Your task to perform on an android device: add a contact Image 0: 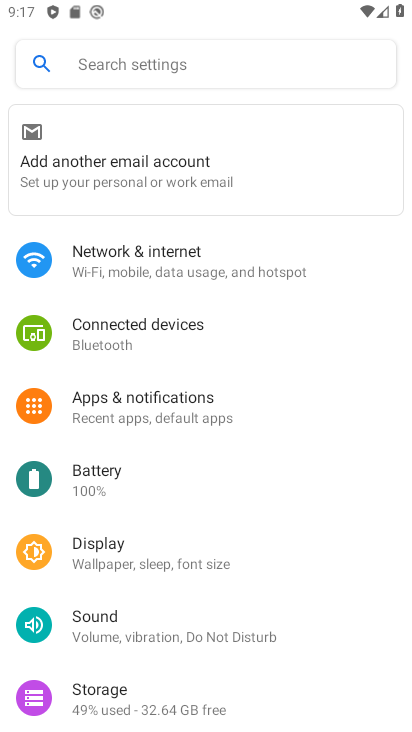
Step 0: press home button
Your task to perform on an android device: add a contact Image 1: 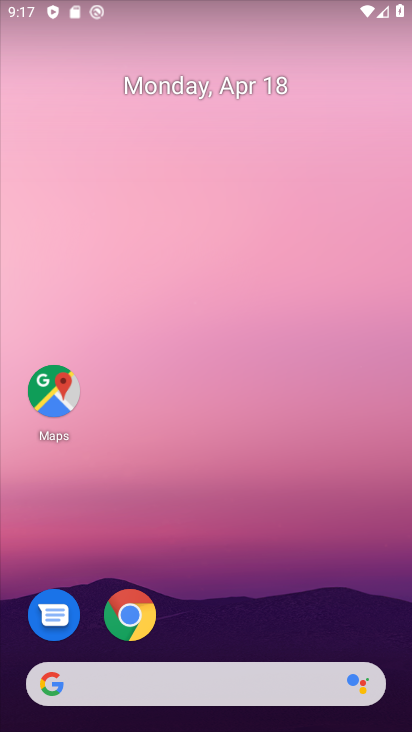
Step 1: drag from (215, 546) to (248, 355)
Your task to perform on an android device: add a contact Image 2: 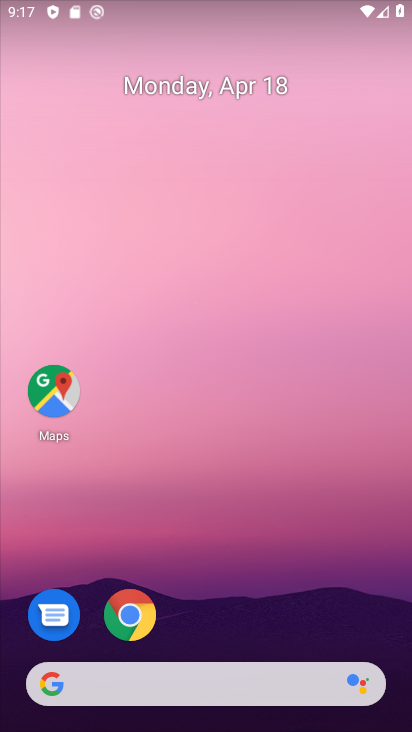
Step 2: drag from (229, 627) to (171, 217)
Your task to perform on an android device: add a contact Image 3: 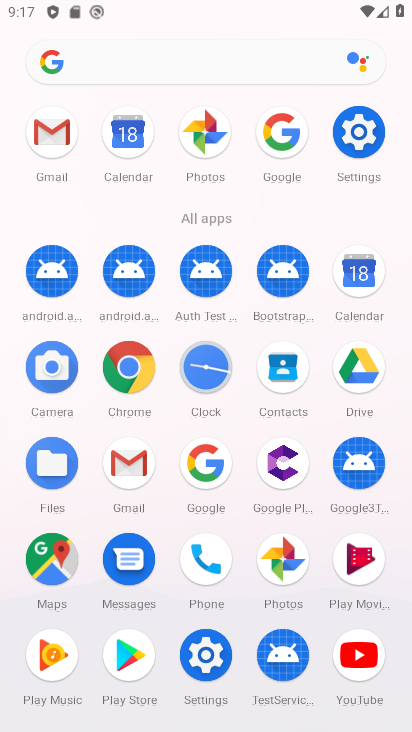
Step 3: click (277, 352)
Your task to perform on an android device: add a contact Image 4: 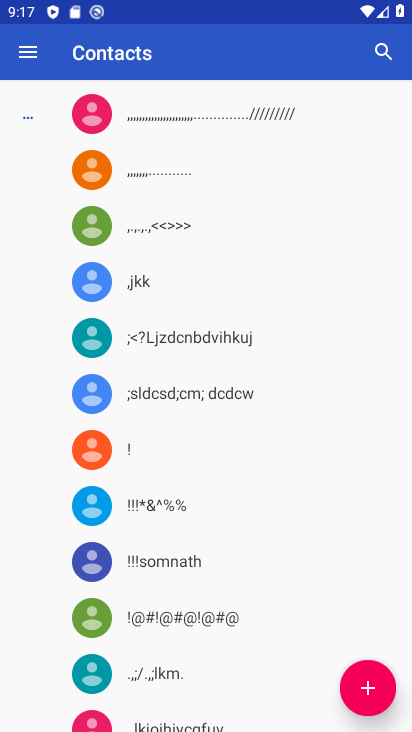
Step 4: click (366, 688)
Your task to perform on an android device: add a contact Image 5: 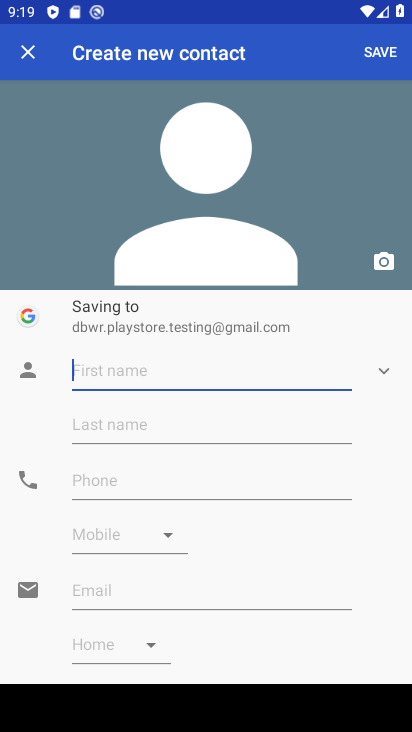
Step 5: type "prito"
Your task to perform on an android device: add a contact Image 6: 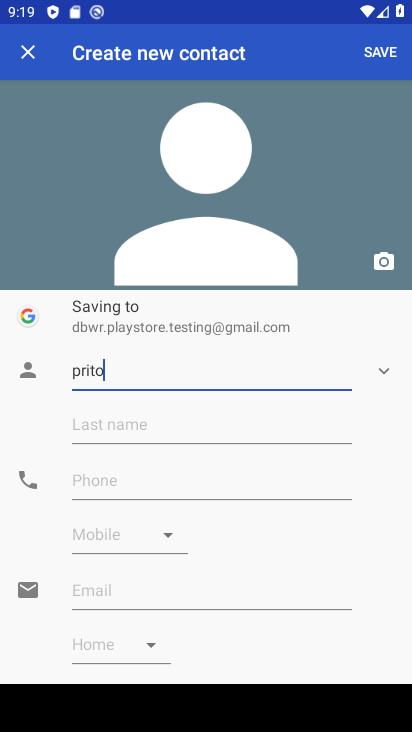
Step 6: click (161, 423)
Your task to perform on an android device: add a contact Image 7: 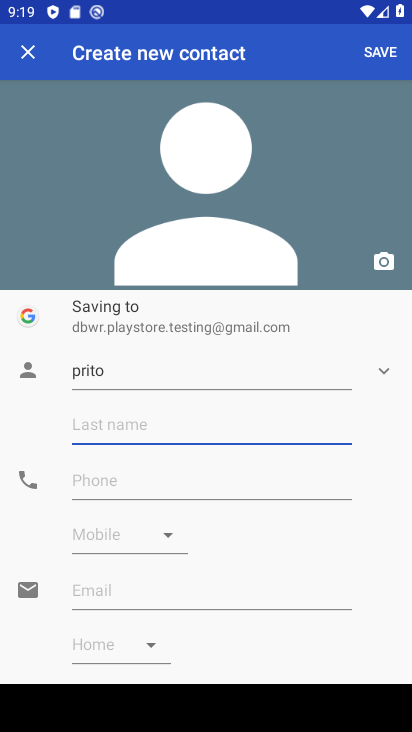
Step 7: type "dhillo"
Your task to perform on an android device: add a contact Image 8: 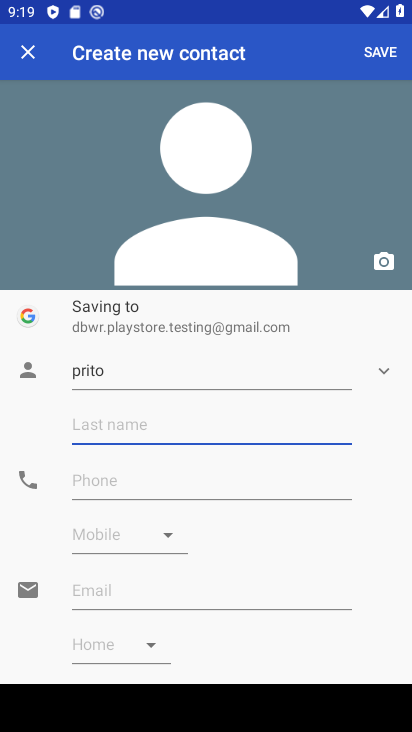
Step 8: click (155, 476)
Your task to perform on an android device: add a contact Image 9: 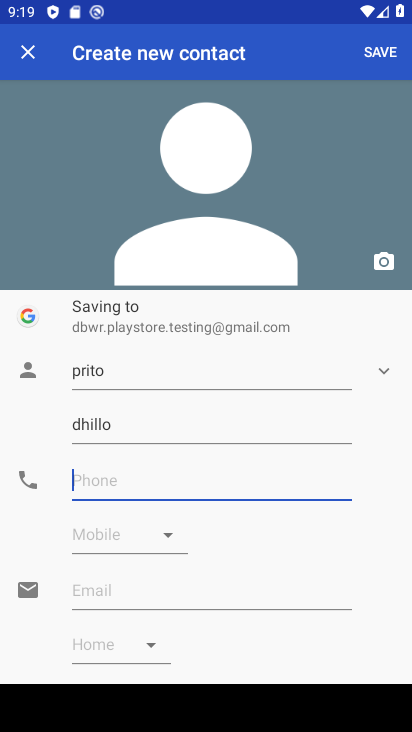
Step 9: type "7678134567"
Your task to perform on an android device: add a contact Image 10: 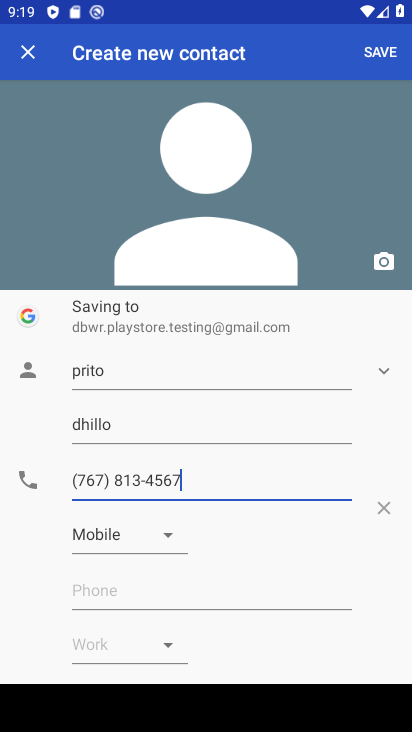
Step 10: click (386, 54)
Your task to perform on an android device: add a contact Image 11: 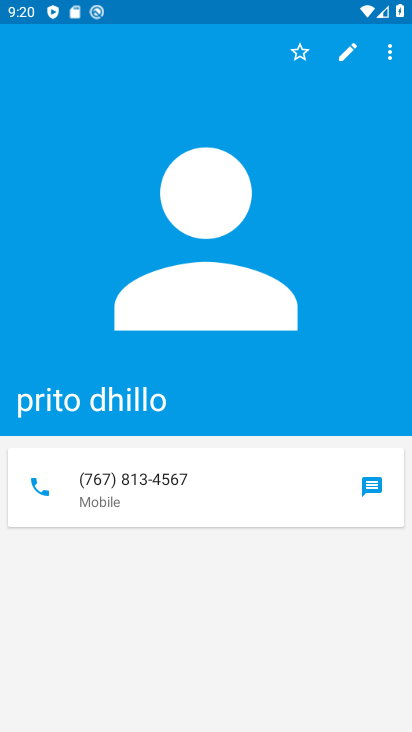
Step 11: task complete